Your task to perform on an android device: Open network settings Image 0: 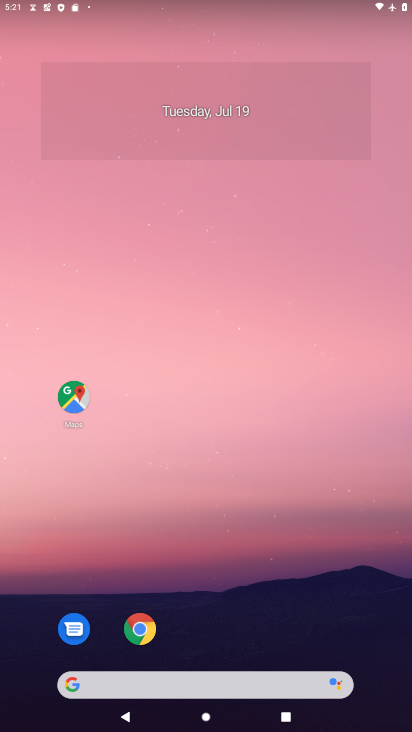
Step 0: drag from (231, 654) to (274, 46)
Your task to perform on an android device: Open network settings Image 1: 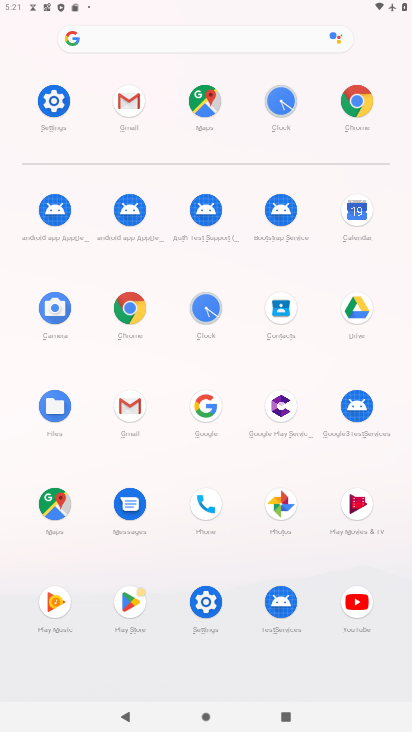
Step 1: click (62, 101)
Your task to perform on an android device: Open network settings Image 2: 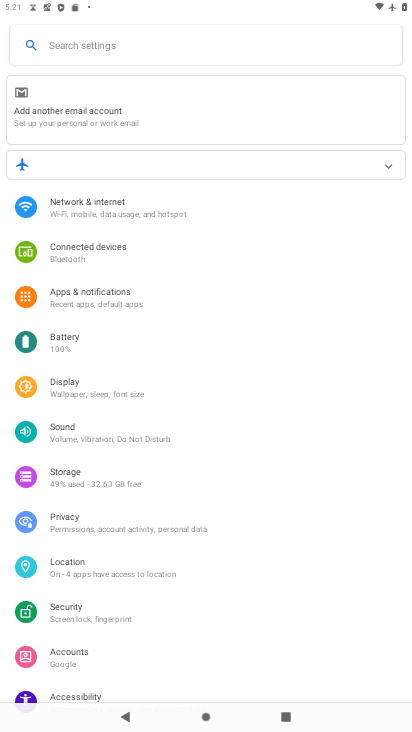
Step 2: click (89, 213)
Your task to perform on an android device: Open network settings Image 3: 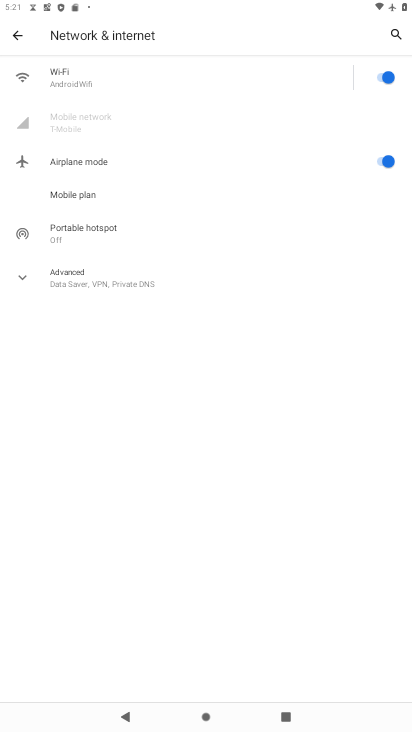
Step 3: task complete